Your task to perform on an android device: Go to Android settings Image 0: 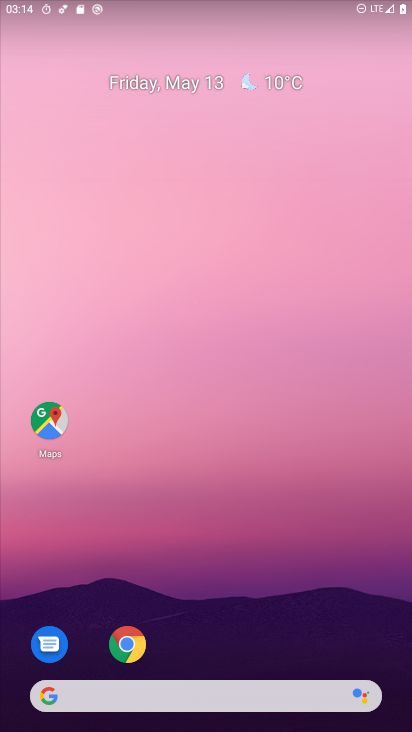
Step 0: drag from (263, 653) to (332, 457)
Your task to perform on an android device: Go to Android settings Image 1: 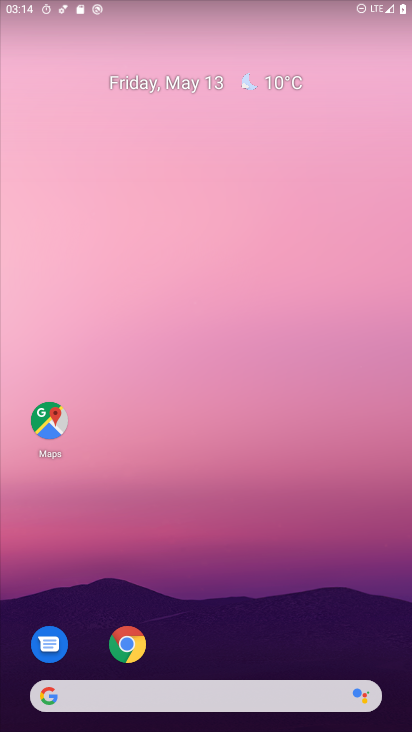
Step 1: drag from (303, 676) to (340, 397)
Your task to perform on an android device: Go to Android settings Image 2: 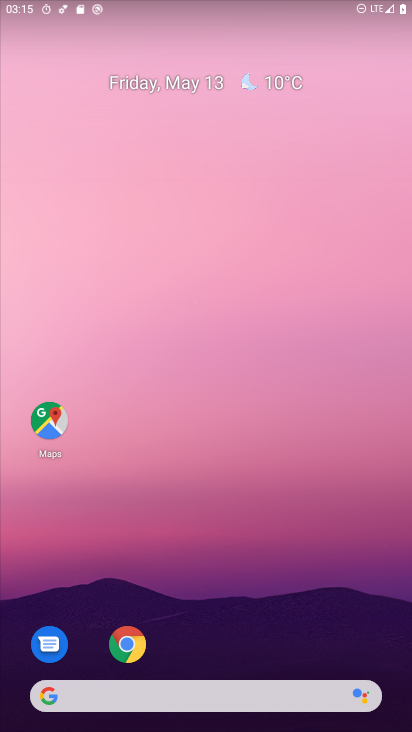
Step 2: drag from (222, 670) to (280, 11)
Your task to perform on an android device: Go to Android settings Image 3: 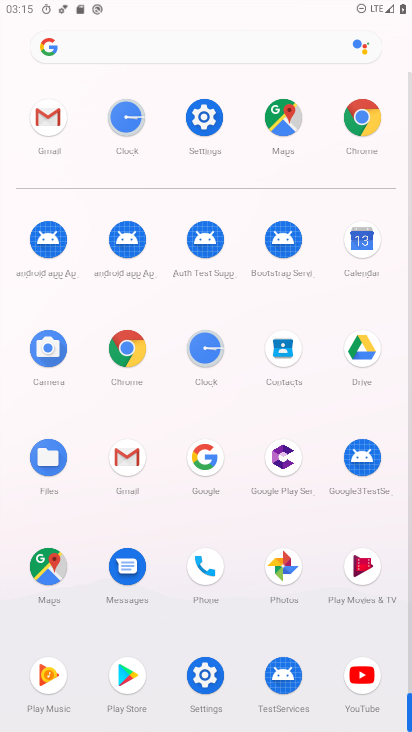
Step 3: click (201, 132)
Your task to perform on an android device: Go to Android settings Image 4: 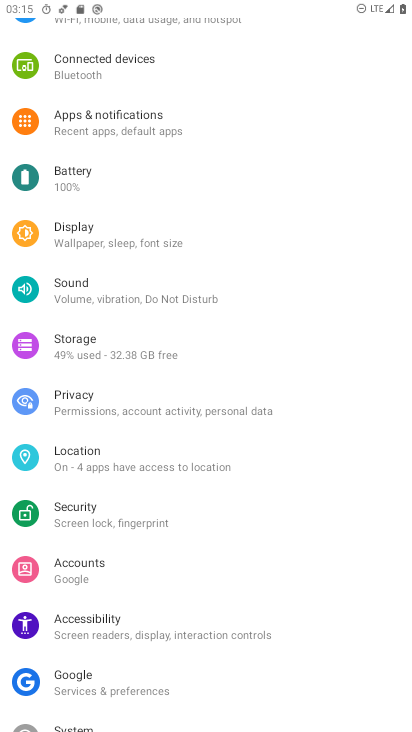
Step 4: click (105, 637)
Your task to perform on an android device: Go to Android settings Image 5: 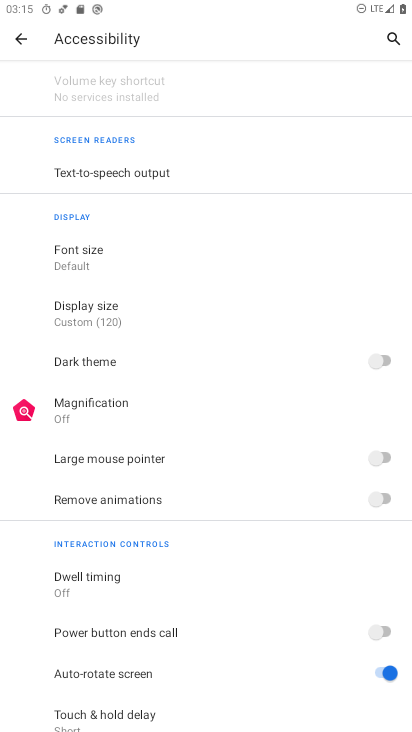
Step 5: click (162, 263)
Your task to perform on an android device: Go to Android settings Image 6: 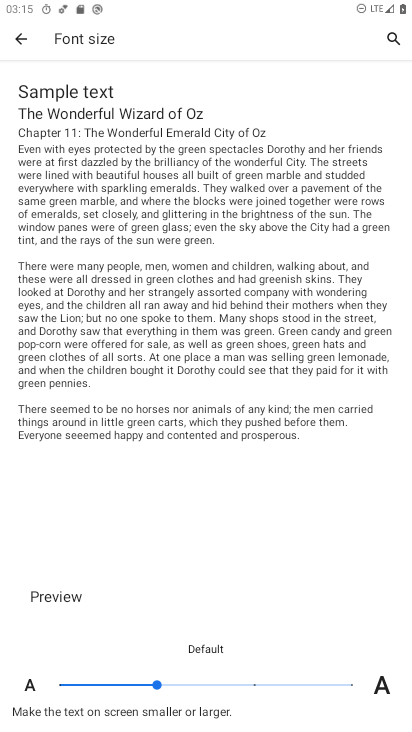
Step 6: click (406, 187)
Your task to perform on an android device: Go to Android settings Image 7: 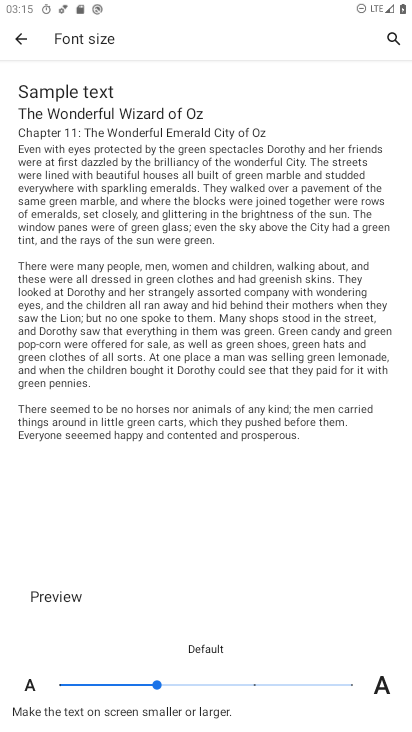
Step 7: task complete